Your task to perform on an android device: all mails in gmail Image 0: 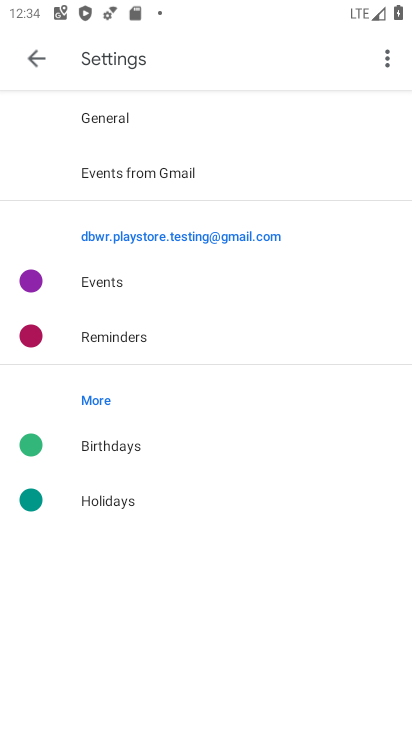
Step 0: press home button
Your task to perform on an android device: all mails in gmail Image 1: 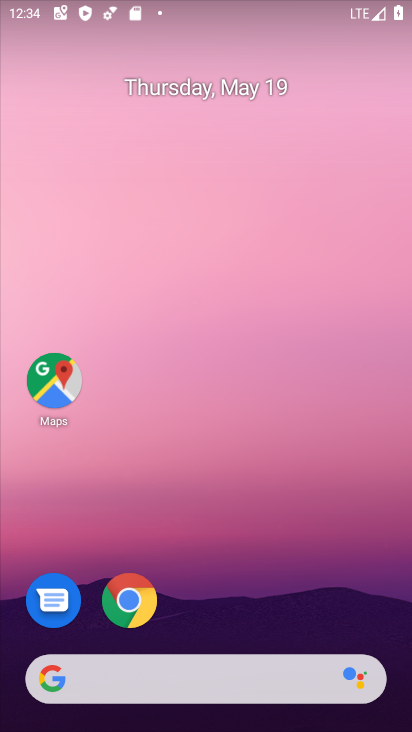
Step 1: drag from (239, 551) to (119, 36)
Your task to perform on an android device: all mails in gmail Image 2: 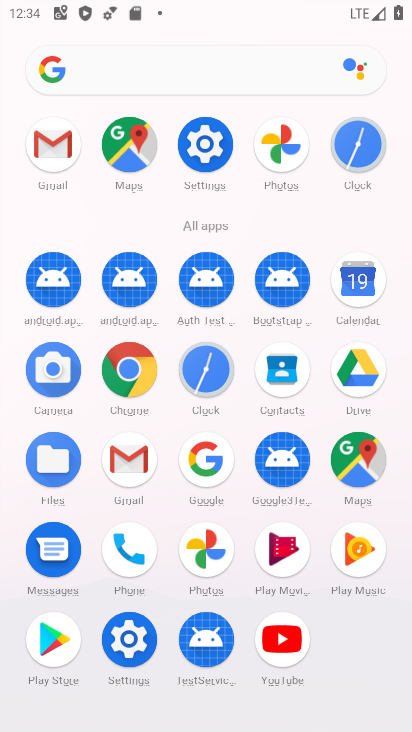
Step 2: click (57, 145)
Your task to perform on an android device: all mails in gmail Image 3: 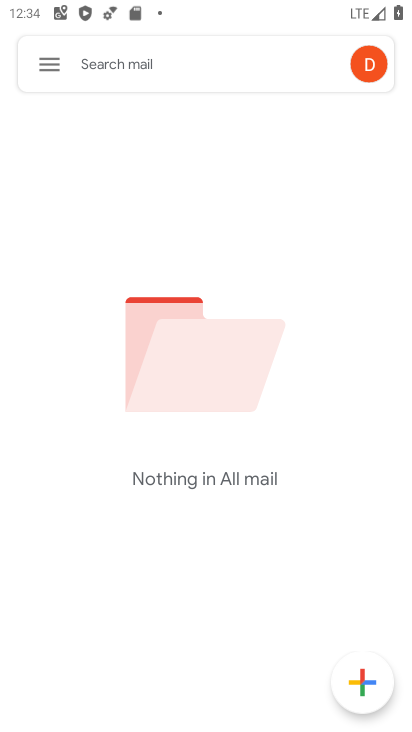
Step 3: click (48, 72)
Your task to perform on an android device: all mails in gmail Image 4: 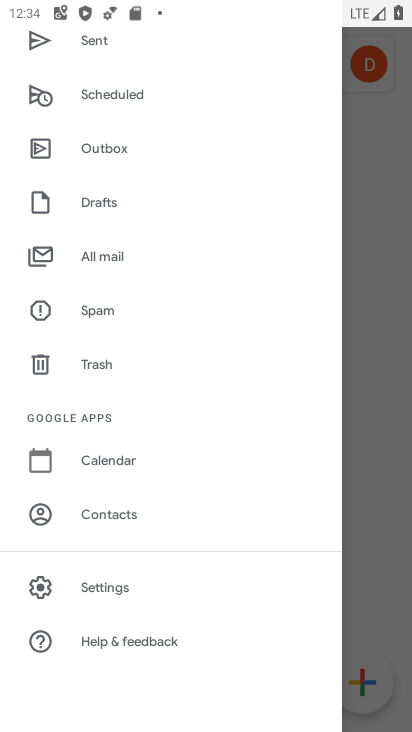
Step 4: click (102, 248)
Your task to perform on an android device: all mails in gmail Image 5: 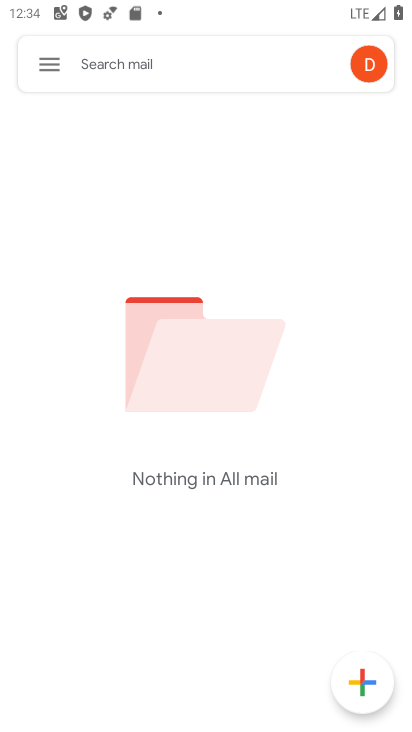
Step 5: task complete